Your task to perform on an android device: change the upload size in google photos Image 0: 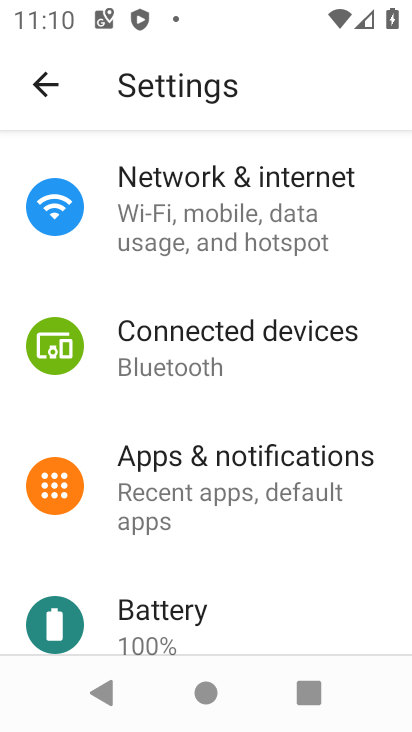
Step 0: press home button
Your task to perform on an android device: change the upload size in google photos Image 1: 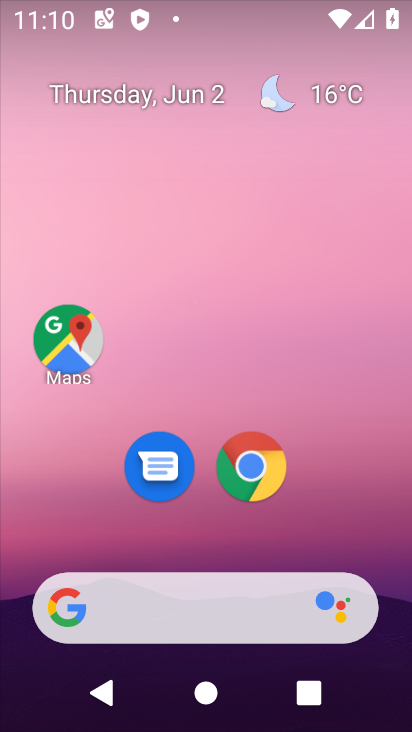
Step 1: drag from (197, 544) to (266, 169)
Your task to perform on an android device: change the upload size in google photos Image 2: 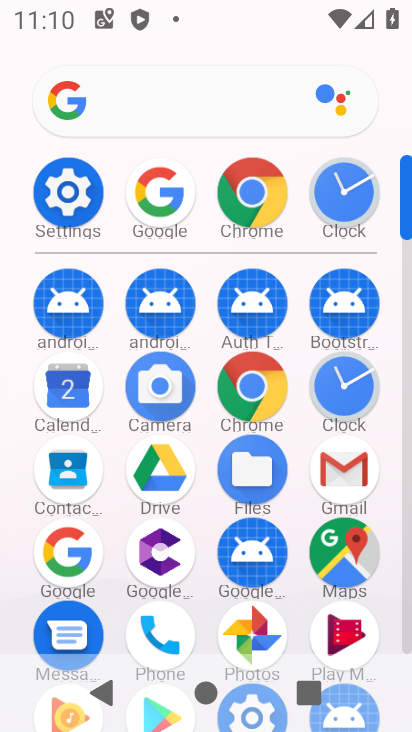
Step 2: click (242, 635)
Your task to perform on an android device: change the upload size in google photos Image 3: 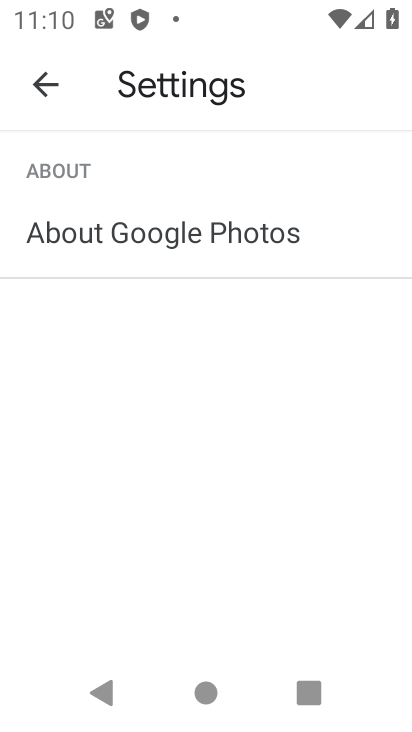
Step 3: click (47, 82)
Your task to perform on an android device: change the upload size in google photos Image 4: 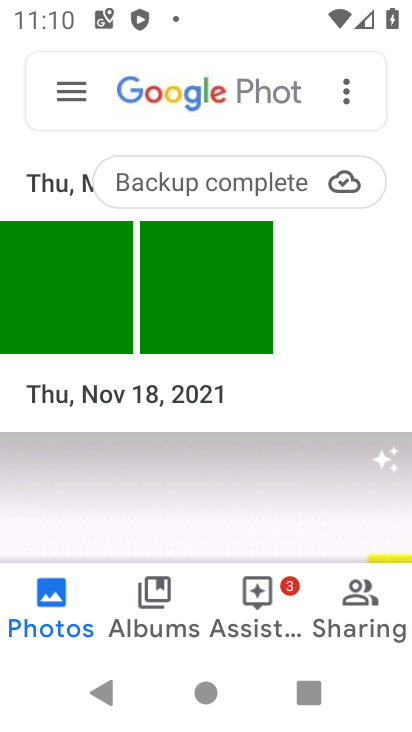
Step 4: click (47, 82)
Your task to perform on an android device: change the upload size in google photos Image 5: 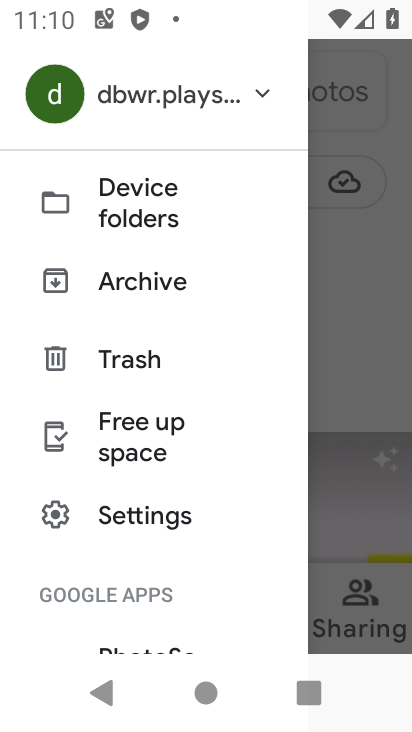
Step 5: drag from (135, 534) to (134, 312)
Your task to perform on an android device: change the upload size in google photos Image 6: 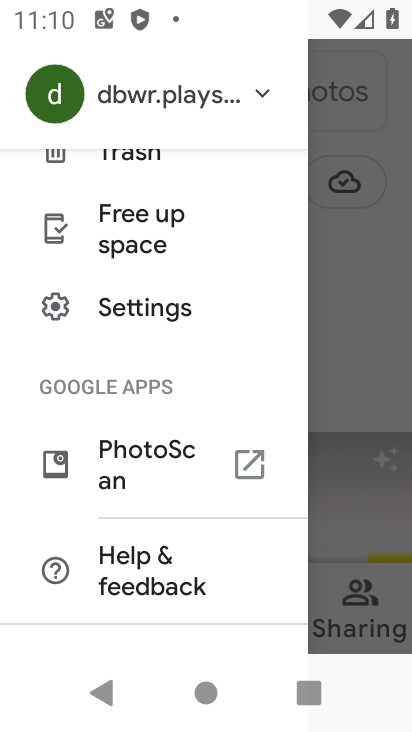
Step 6: click (127, 315)
Your task to perform on an android device: change the upload size in google photos Image 7: 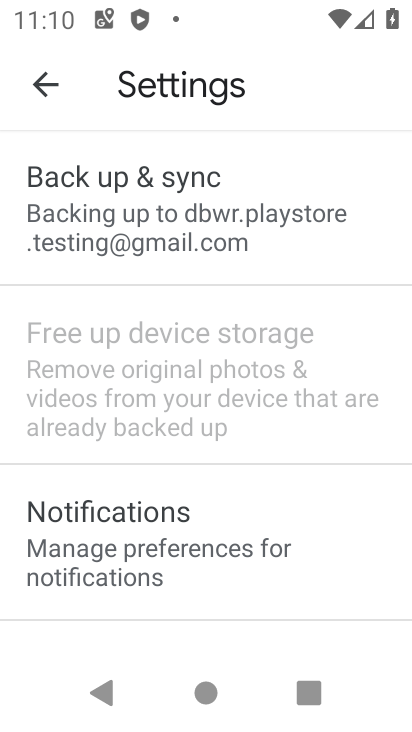
Step 7: drag from (150, 589) to (198, 312)
Your task to perform on an android device: change the upload size in google photos Image 8: 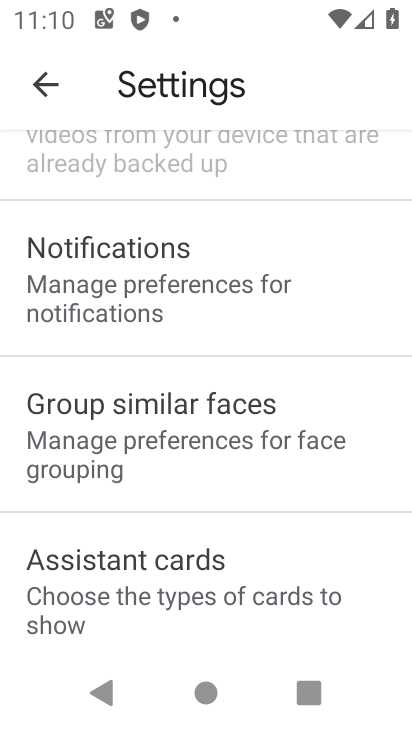
Step 8: drag from (134, 566) to (162, 264)
Your task to perform on an android device: change the upload size in google photos Image 9: 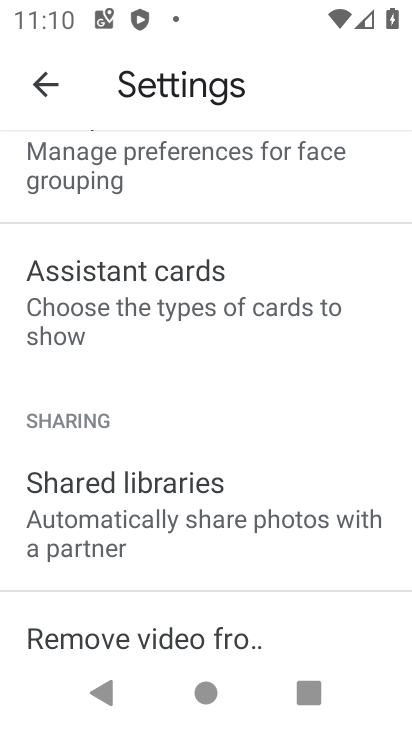
Step 9: drag from (123, 555) to (184, 216)
Your task to perform on an android device: change the upload size in google photos Image 10: 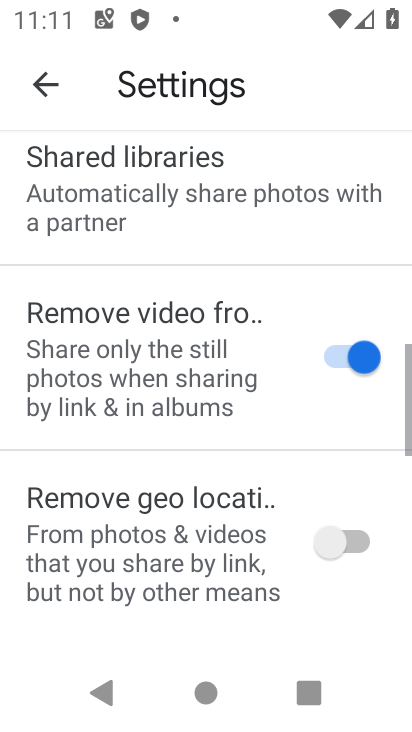
Step 10: drag from (149, 453) to (196, 534)
Your task to perform on an android device: change the upload size in google photos Image 11: 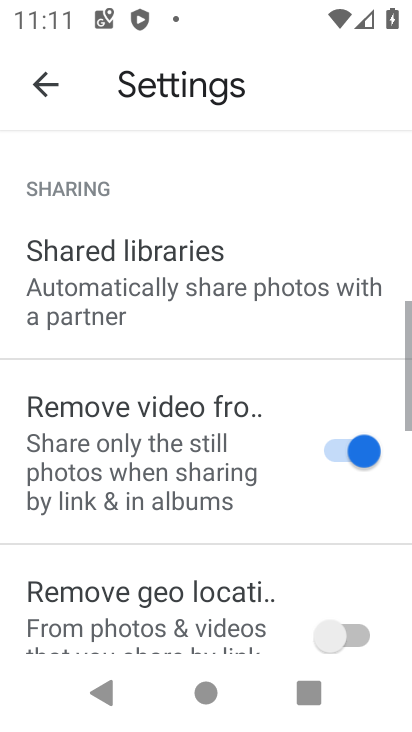
Step 11: drag from (157, 308) to (156, 530)
Your task to perform on an android device: change the upload size in google photos Image 12: 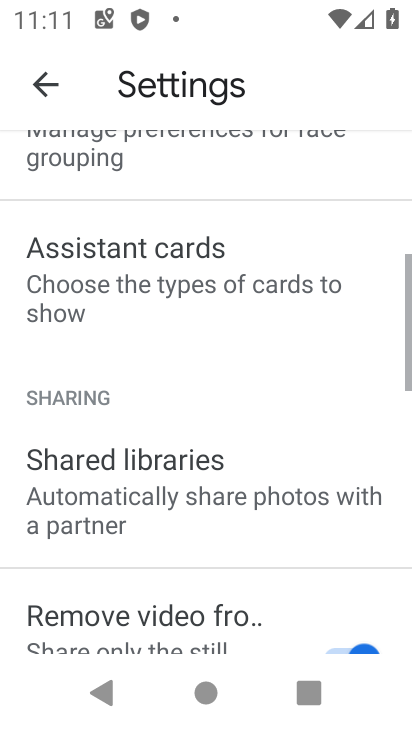
Step 12: drag from (130, 260) to (117, 602)
Your task to perform on an android device: change the upload size in google photos Image 13: 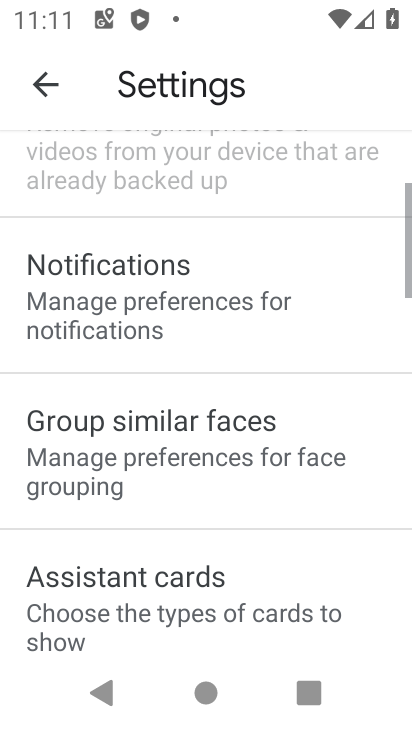
Step 13: drag from (137, 276) to (137, 570)
Your task to perform on an android device: change the upload size in google photos Image 14: 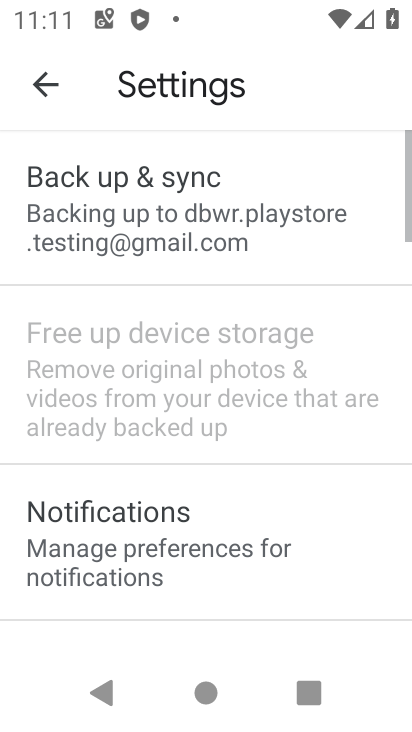
Step 14: drag from (151, 310) to (151, 547)
Your task to perform on an android device: change the upload size in google photos Image 15: 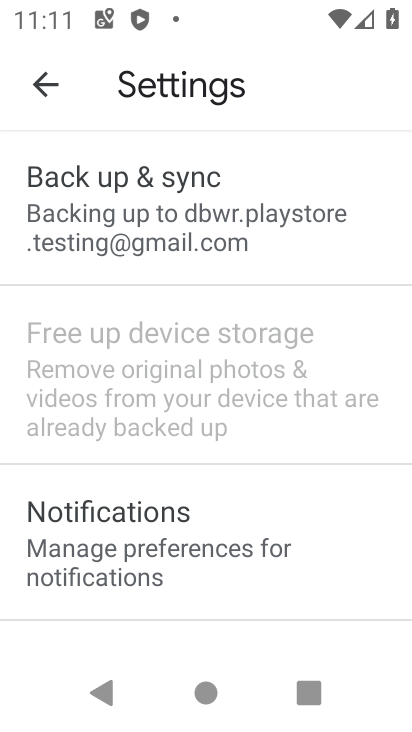
Step 15: click (170, 219)
Your task to perform on an android device: change the upload size in google photos Image 16: 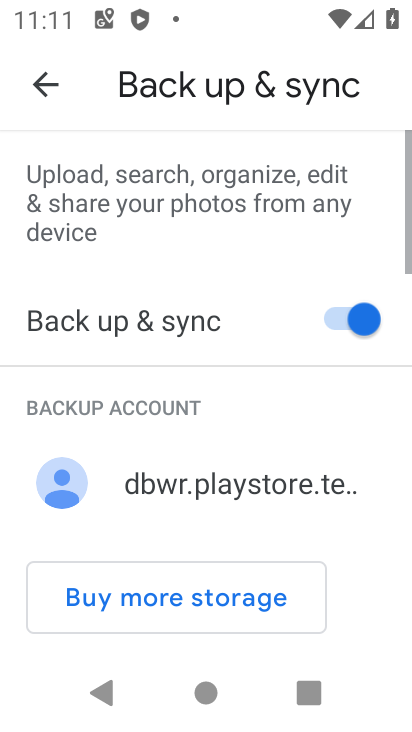
Step 16: drag from (187, 594) to (233, 217)
Your task to perform on an android device: change the upload size in google photos Image 17: 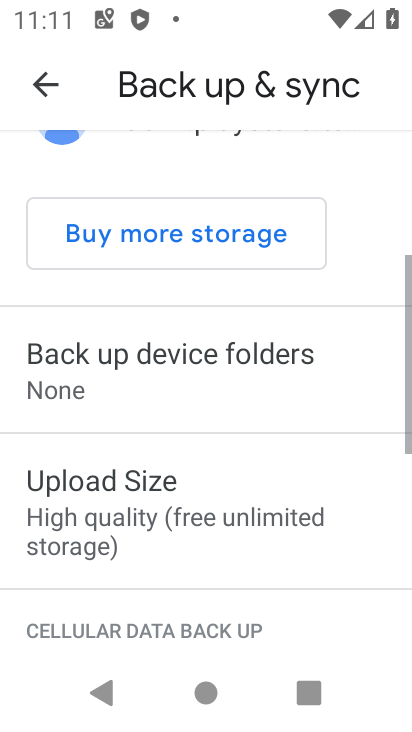
Step 17: click (184, 583)
Your task to perform on an android device: change the upload size in google photos Image 18: 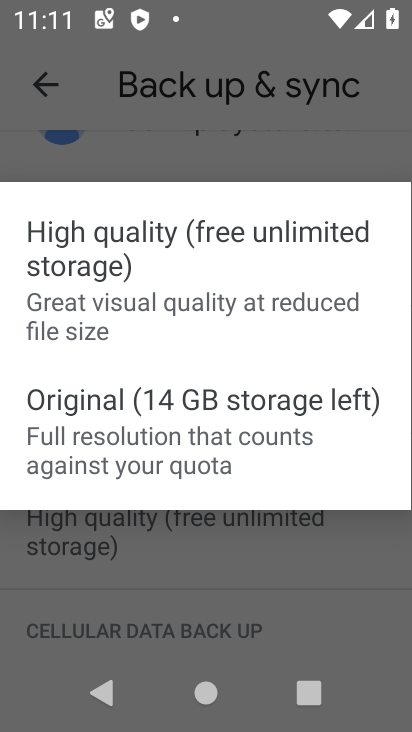
Step 18: click (151, 442)
Your task to perform on an android device: change the upload size in google photos Image 19: 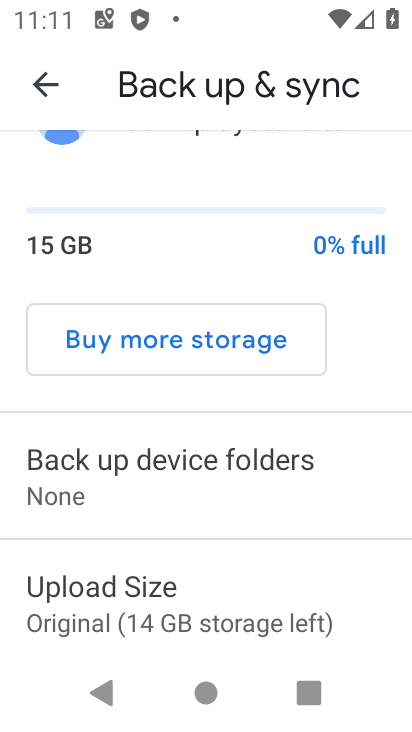
Step 19: task complete